Your task to perform on an android device: Go to eBay Image 0: 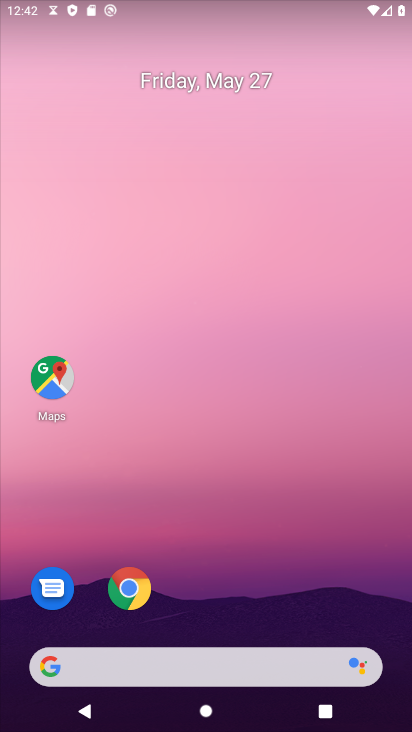
Step 0: click (125, 583)
Your task to perform on an android device: Go to eBay Image 1: 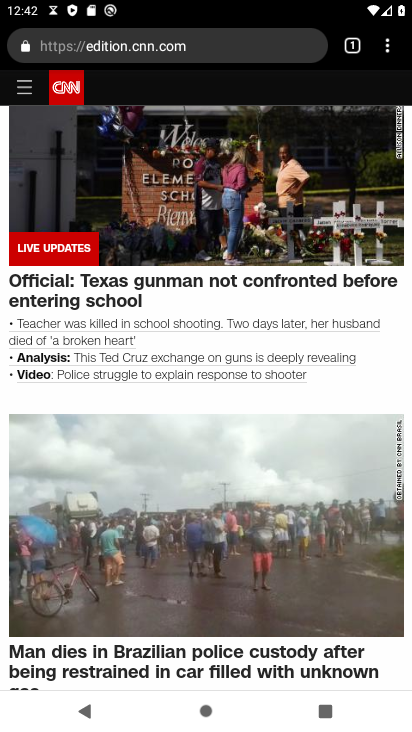
Step 1: click (355, 42)
Your task to perform on an android device: Go to eBay Image 2: 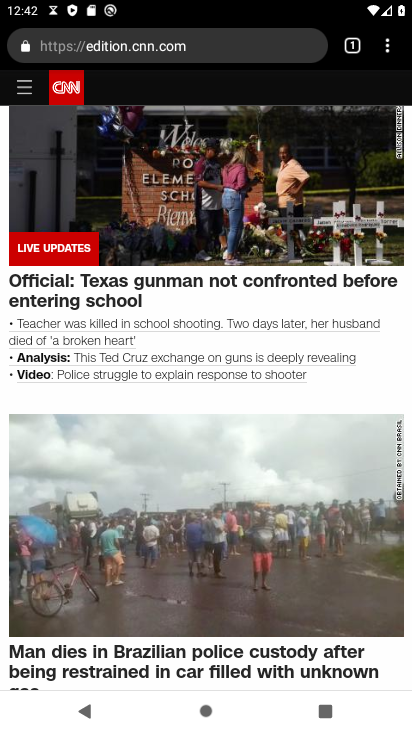
Step 2: click (352, 47)
Your task to perform on an android device: Go to eBay Image 3: 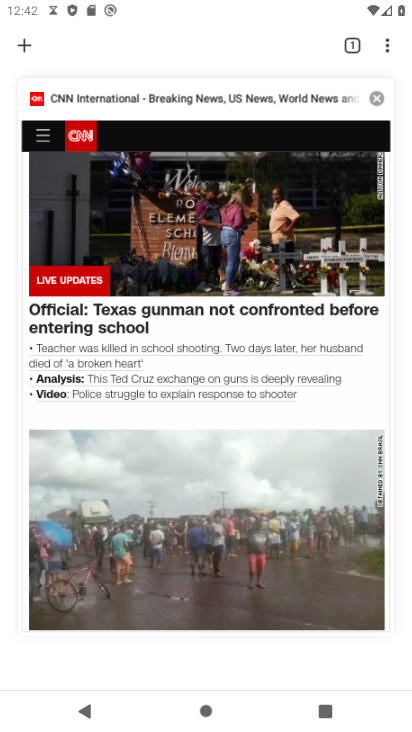
Step 3: click (376, 93)
Your task to perform on an android device: Go to eBay Image 4: 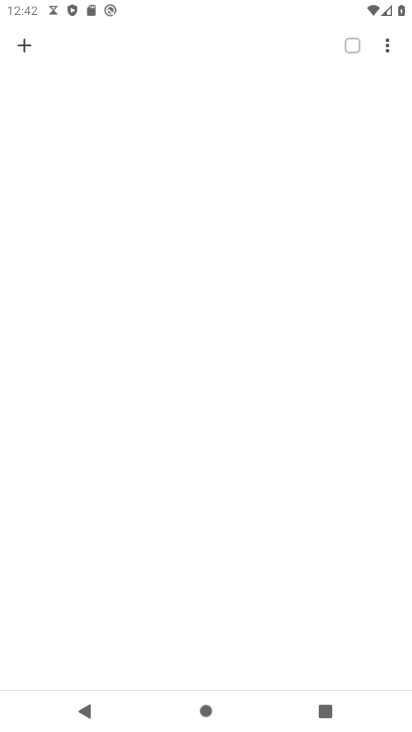
Step 4: click (31, 44)
Your task to perform on an android device: Go to eBay Image 5: 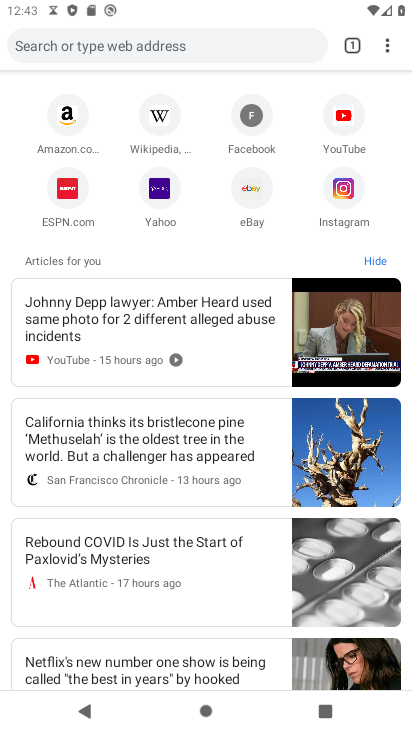
Step 5: click (250, 184)
Your task to perform on an android device: Go to eBay Image 6: 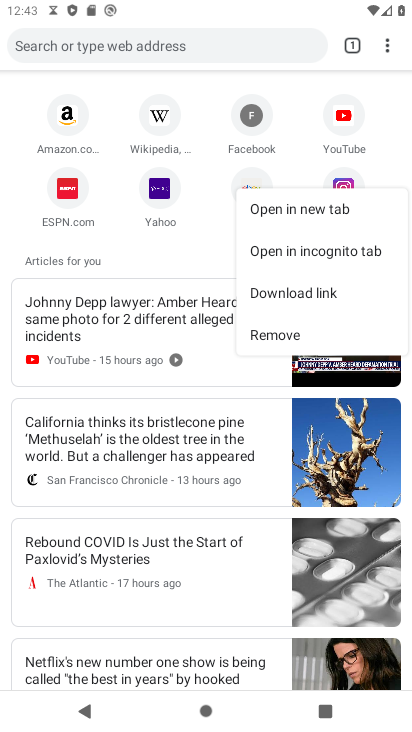
Step 6: click (209, 257)
Your task to perform on an android device: Go to eBay Image 7: 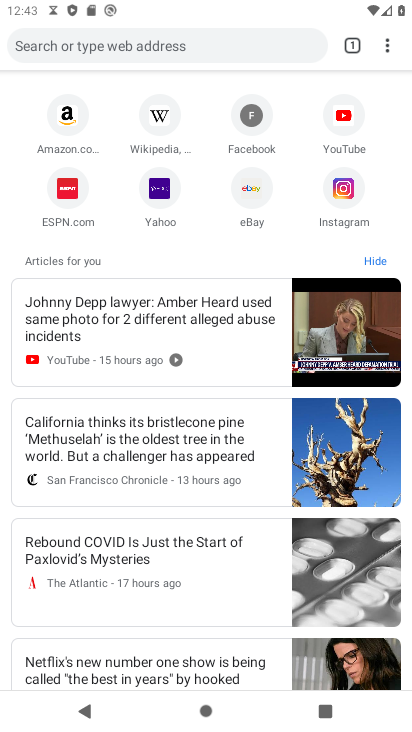
Step 7: click (249, 185)
Your task to perform on an android device: Go to eBay Image 8: 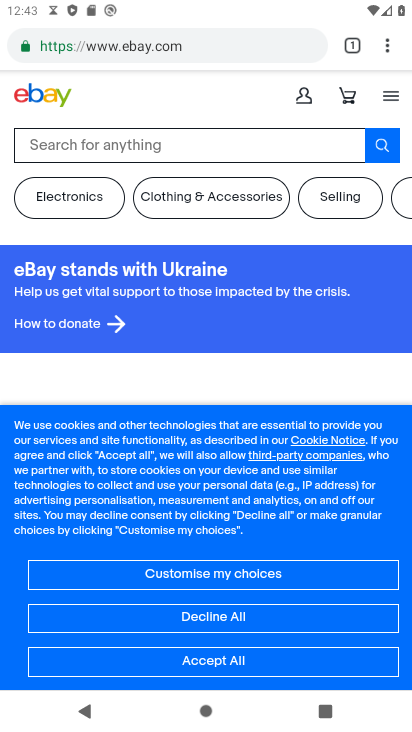
Step 8: click (221, 660)
Your task to perform on an android device: Go to eBay Image 9: 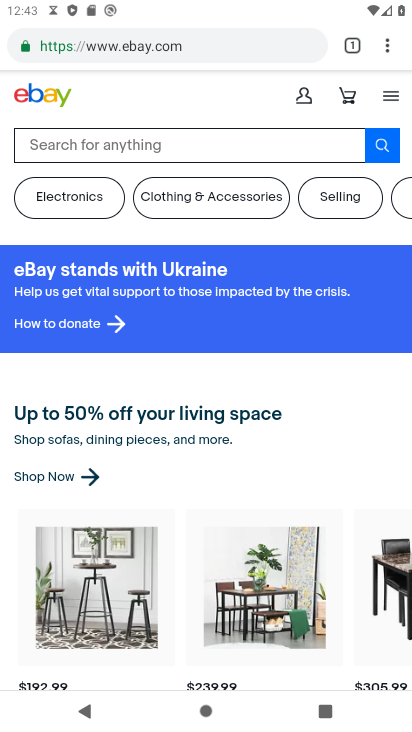
Step 9: task complete